Your task to perform on an android device: turn off smart reply in the gmail app Image 0: 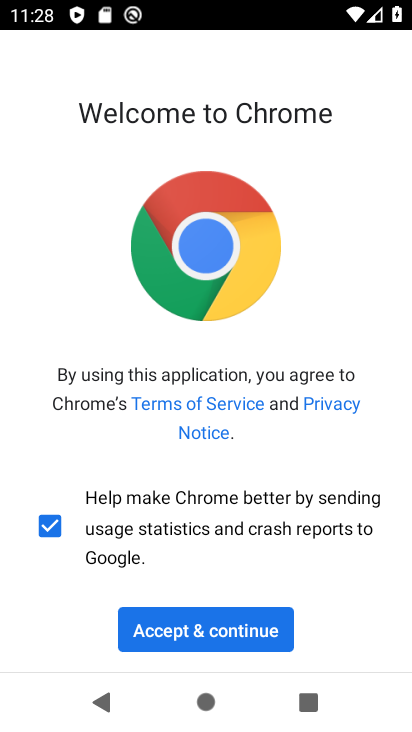
Step 0: press home button
Your task to perform on an android device: turn off smart reply in the gmail app Image 1: 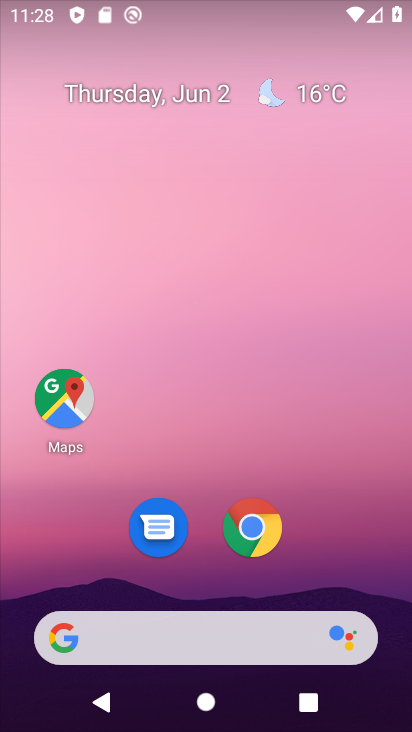
Step 1: drag from (194, 632) to (172, 72)
Your task to perform on an android device: turn off smart reply in the gmail app Image 2: 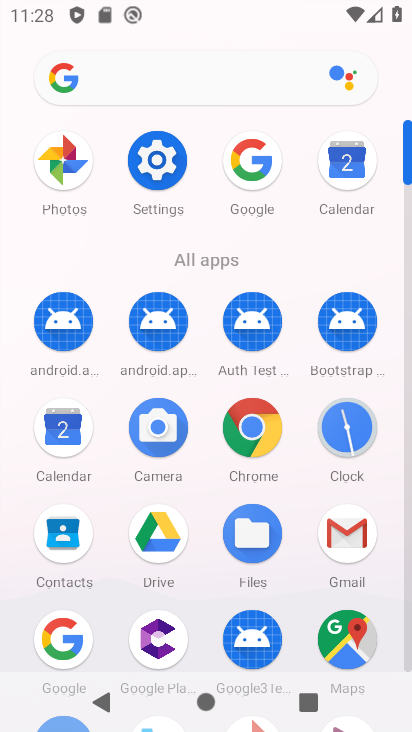
Step 2: click (318, 535)
Your task to perform on an android device: turn off smart reply in the gmail app Image 3: 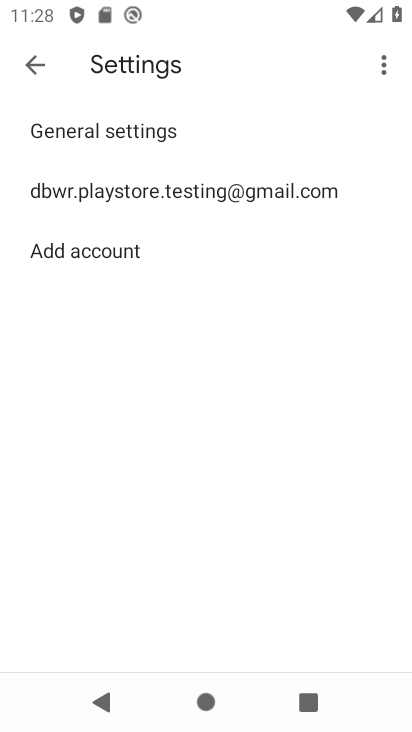
Step 3: click (108, 197)
Your task to perform on an android device: turn off smart reply in the gmail app Image 4: 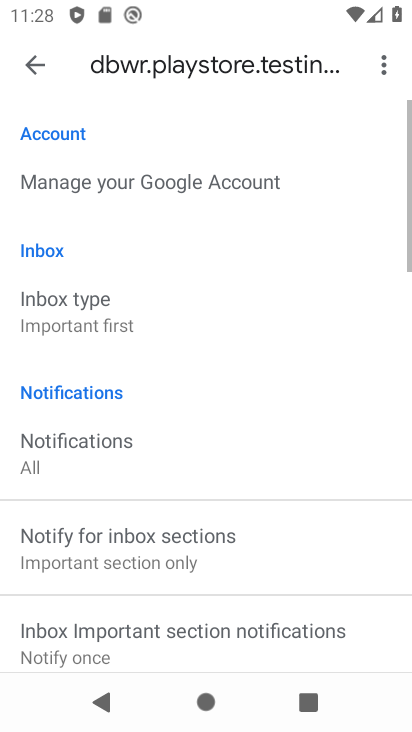
Step 4: drag from (159, 593) to (113, 62)
Your task to perform on an android device: turn off smart reply in the gmail app Image 5: 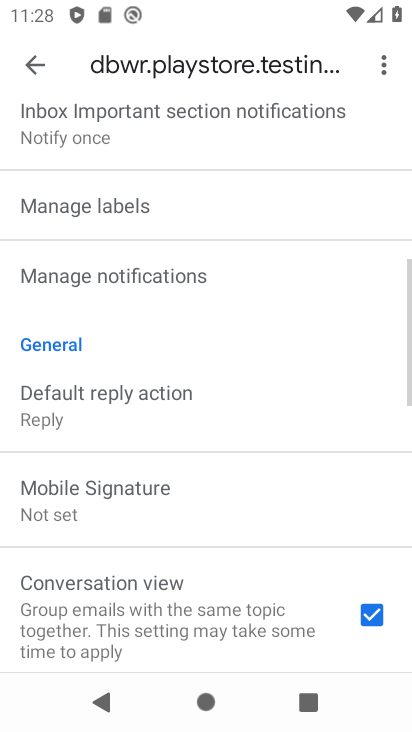
Step 5: drag from (161, 622) to (159, 96)
Your task to perform on an android device: turn off smart reply in the gmail app Image 6: 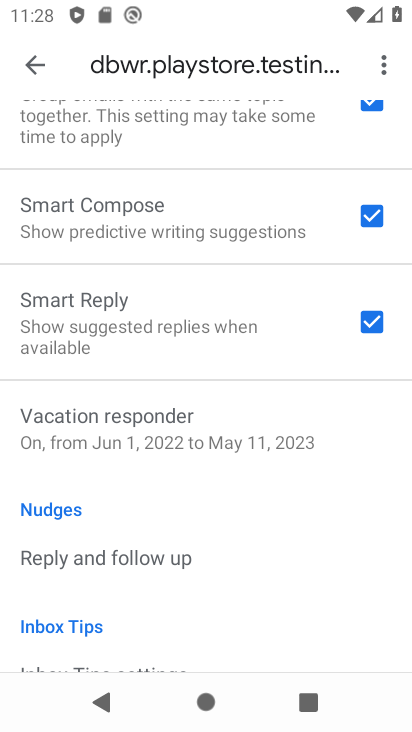
Step 6: click (373, 325)
Your task to perform on an android device: turn off smart reply in the gmail app Image 7: 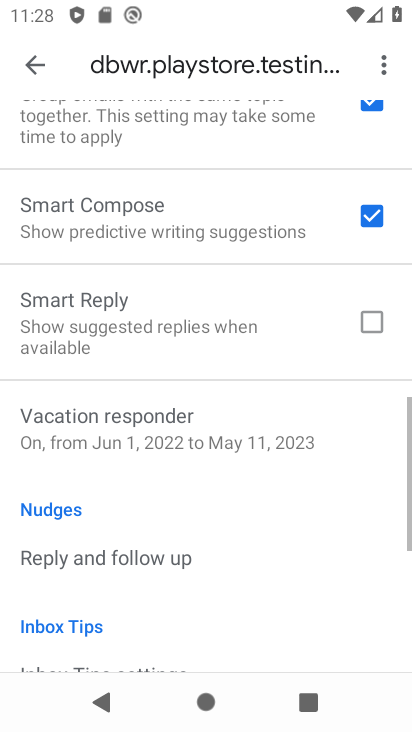
Step 7: task complete